Your task to perform on an android device: Open the phone app and click the voicemail tab. Image 0: 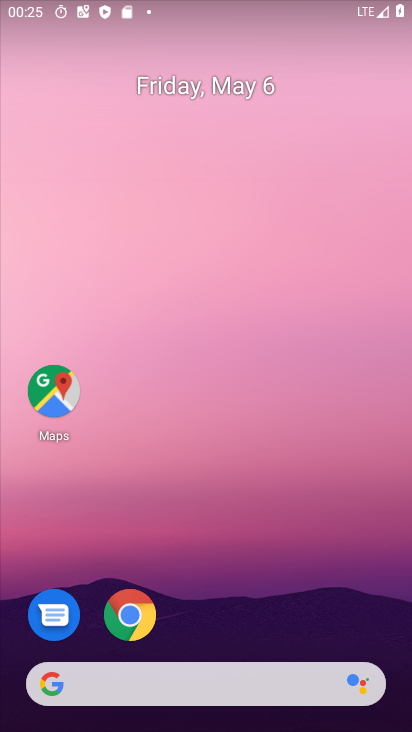
Step 0: drag from (253, 562) to (308, 28)
Your task to perform on an android device: Open the phone app and click the voicemail tab. Image 1: 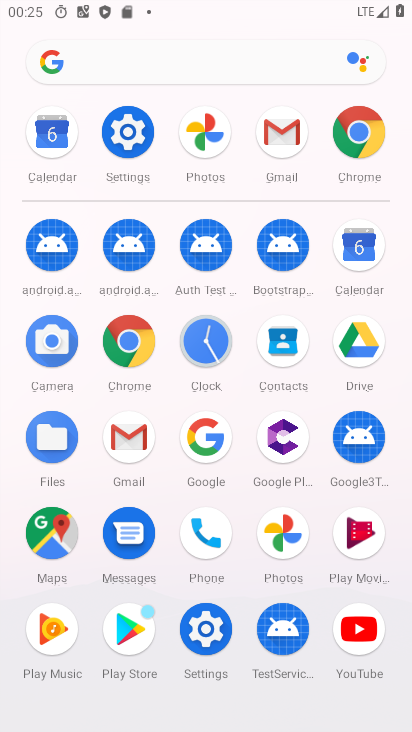
Step 1: click (204, 548)
Your task to perform on an android device: Open the phone app and click the voicemail tab. Image 2: 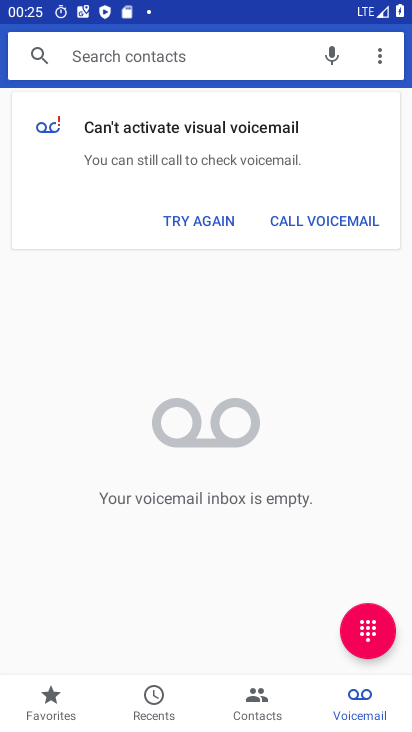
Step 2: click (356, 714)
Your task to perform on an android device: Open the phone app and click the voicemail tab. Image 3: 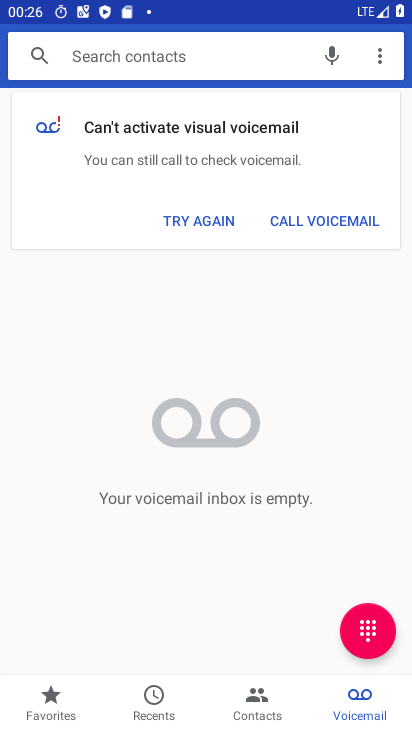
Step 3: task complete